Your task to perform on an android device: When is my next appointment? Image 0: 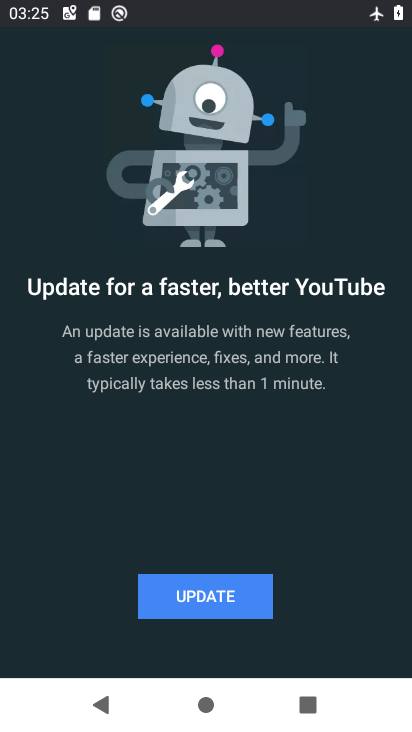
Step 0: press home button
Your task to perform on an android device: When is my next appointment? Image 1: 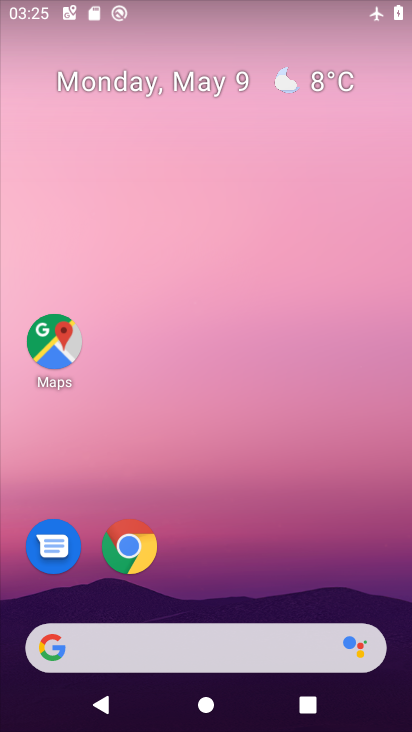
Step 1: drag from (279, 531) to (269, 29)
Your task to perform on an android device: When is my next appointment? Image 2: 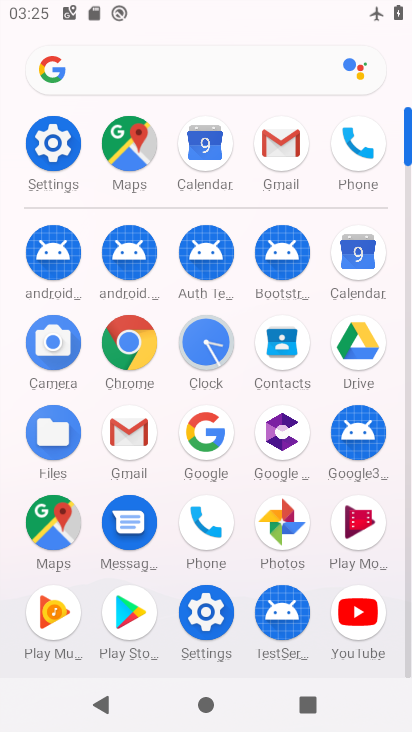
Step 2: click (215, 137)
Your task to perform on an android device: When is my next appointment? Image 3: 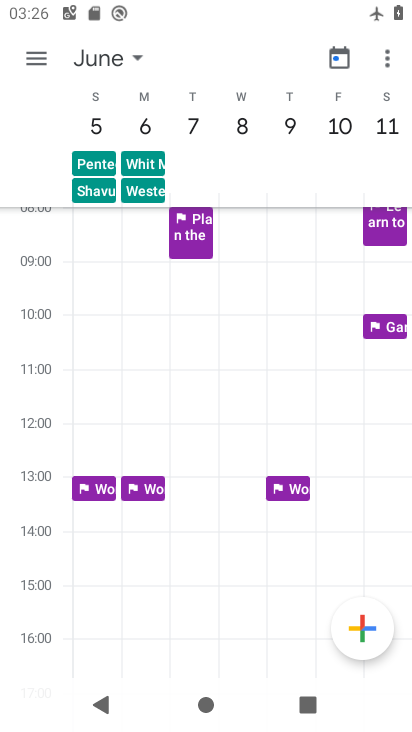
Step 3: drag from (90, 325) to (361, 325)
Your task to perform on an android device: When is my next appointment? Image 4: 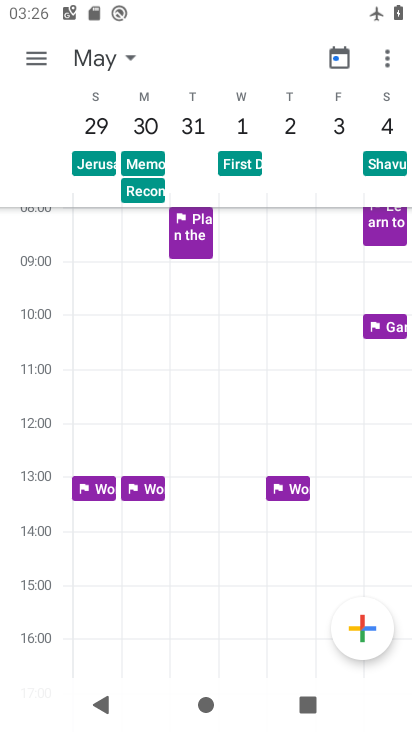
Step 4: drag from (132, 350) to (406, 294)
Your task to perform on an android device: When is my next appointment? Image 5: 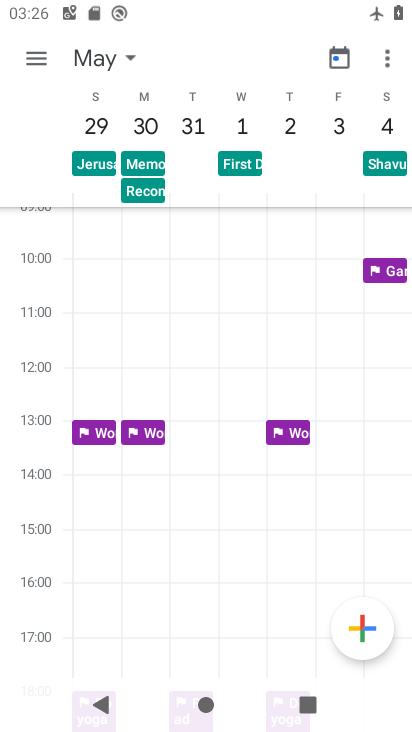
Step 5: drag from (84, 304) to (389, 222)
Your task to perform on an android device: When is my next appointment? Image 6: 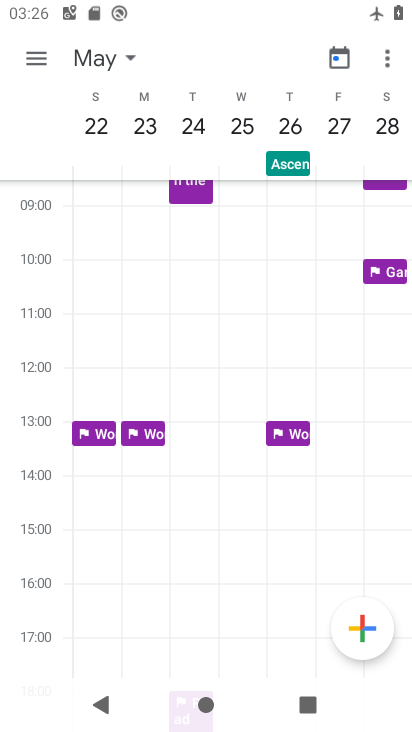
Step 6: click (41, 53)
Your task to perform on an android device: When is my next appointment? Image 7: 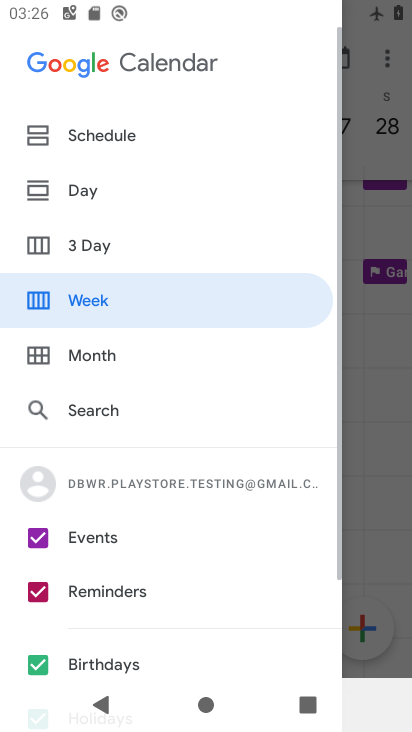
Step 7: click (85, 133)
Your task to perform on an android device: When is my next appointment? Image 8: 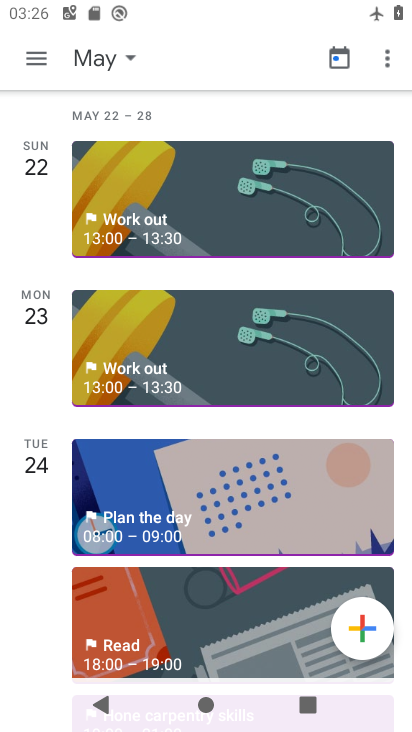
Step 8: drag from (203, 187) to (293, 691)
Your task to perform on an android device: When is my next appointment? Image 9: 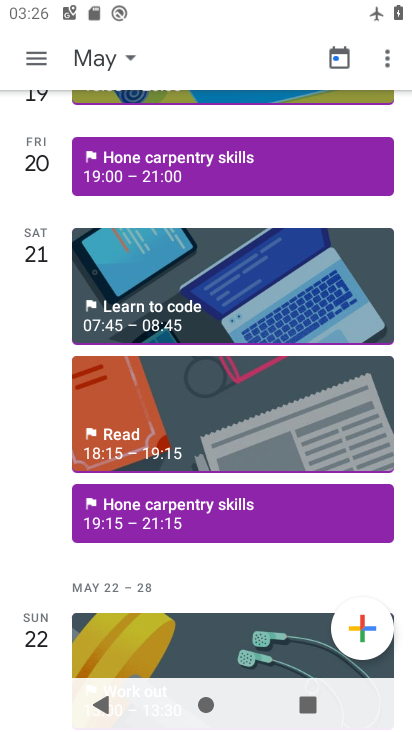
Step 9: drag from (245, 161) to (254, 660)
Your task to perform on an android device: When is my next appointment? Image 10: 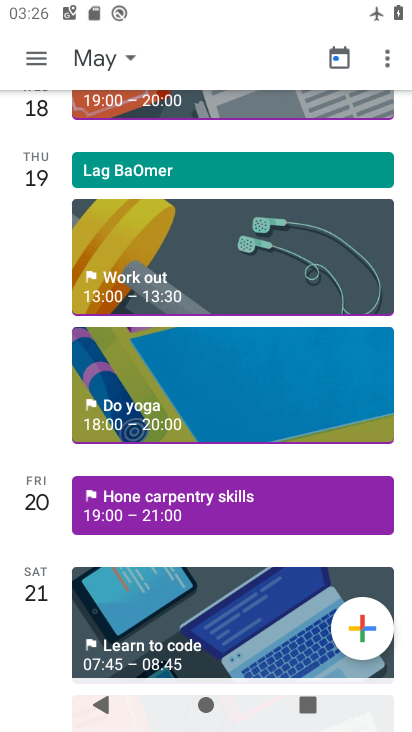
Step 10: drag from (192, 112) to (203, 690)
Your task to perform on an android device: When is my next appointment? Image 11: 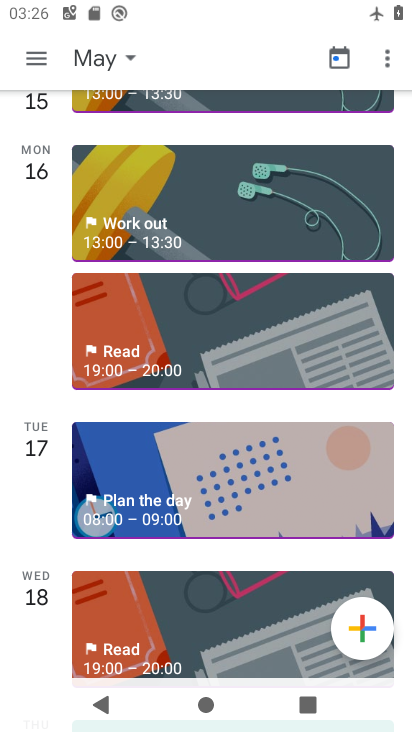
Step 11: drag from (206, 152) to (189, 727)
Your task to perform on an android device: When is my next appointment? Image 12: 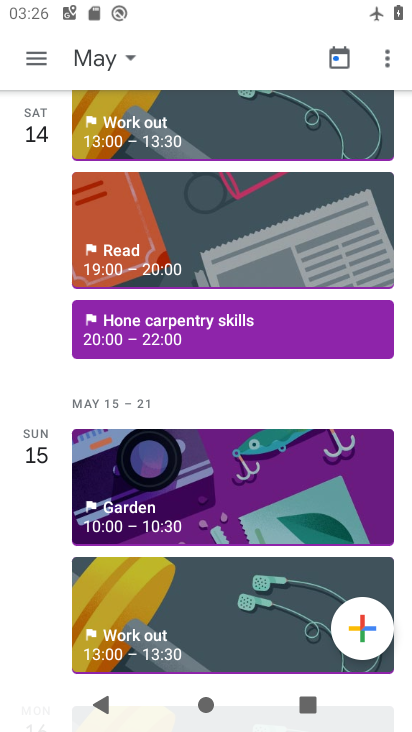
Step 12: drag from (165, 111) to (250, 693)
Your task to perform on an android device: When is my next appointment? Image 13: 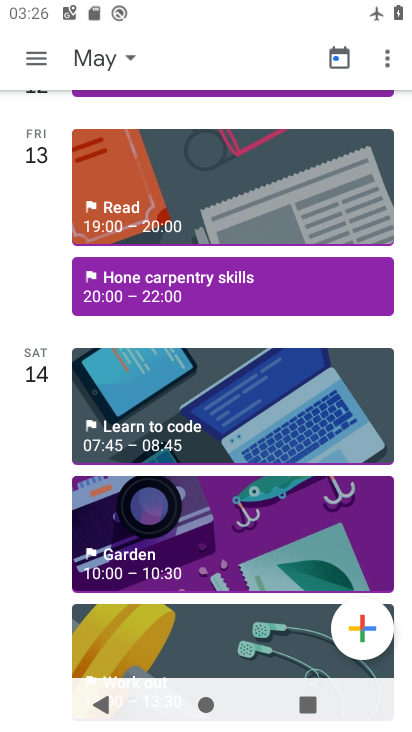
Step 13: drag from (218, 182) to (273, 707)
Your task to perform on an android device: When is my next appointment? Image 14: 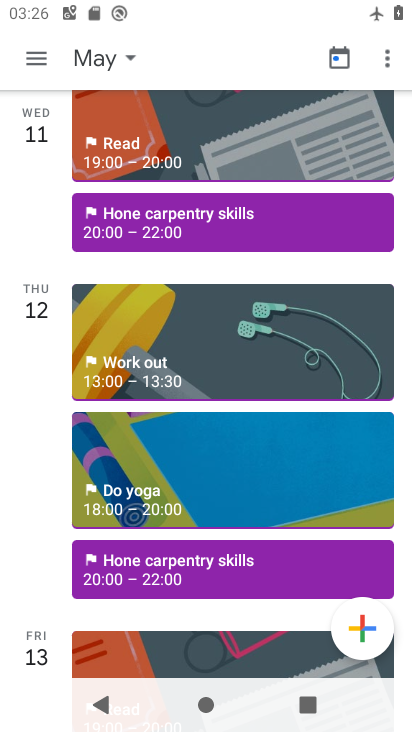
Step 14: drag from (176, 133) to (289, 657)
Your task to perform on an android device: When is my next appointment? Image 15: 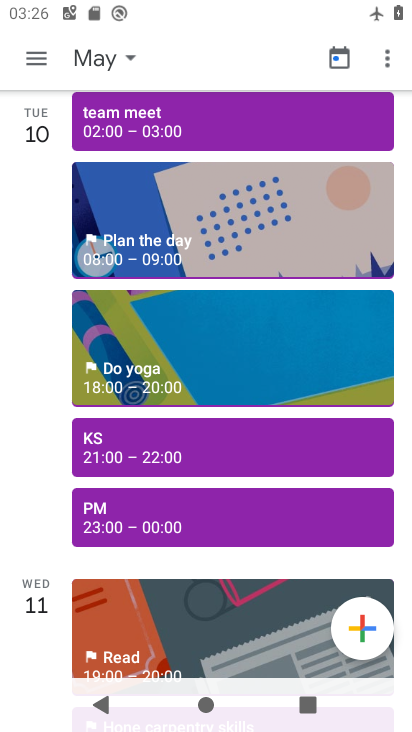
Step 15: drag from (191, 125) to (262, 588)
Your task to perform on an android device: When is my next appointment? Image 16: 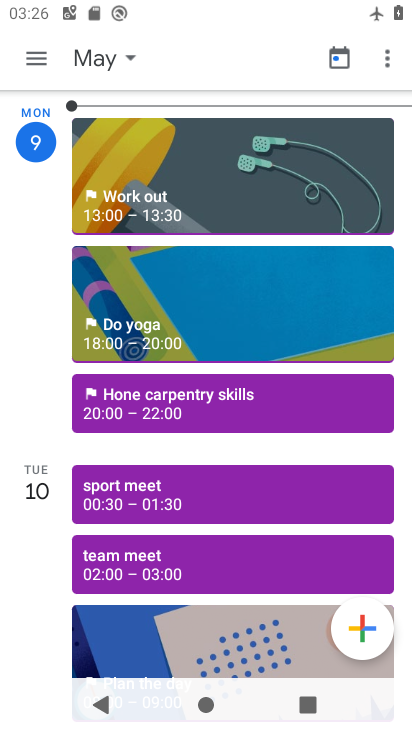
Step 16: drag from (181, 159) to (233, 451)
Your task to perform on an android device: When is my next appointment? Image 17: 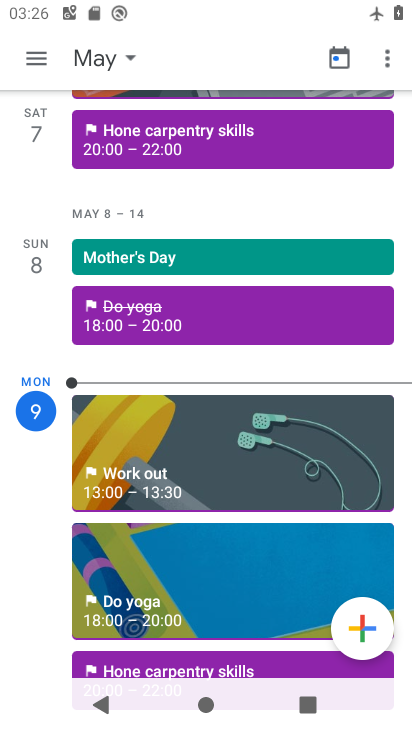
Step 17: click (204, 442)
Your task to perform on an android device: When is my next appointment? Image 18: 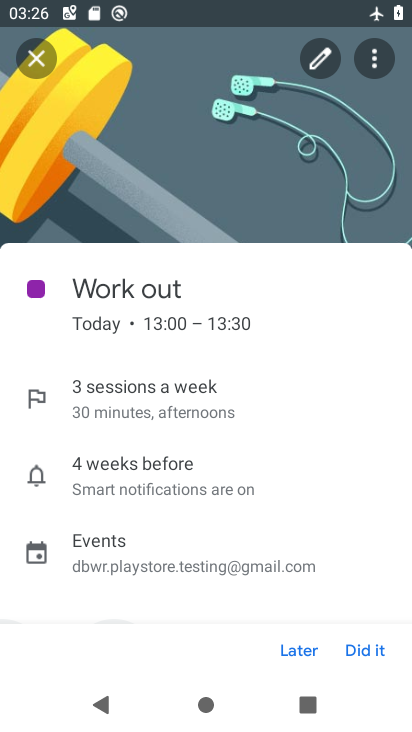
Step 18: task complete